Your task to perform on an android device: install app "Pandora - Music & Podcasts" Image 0: 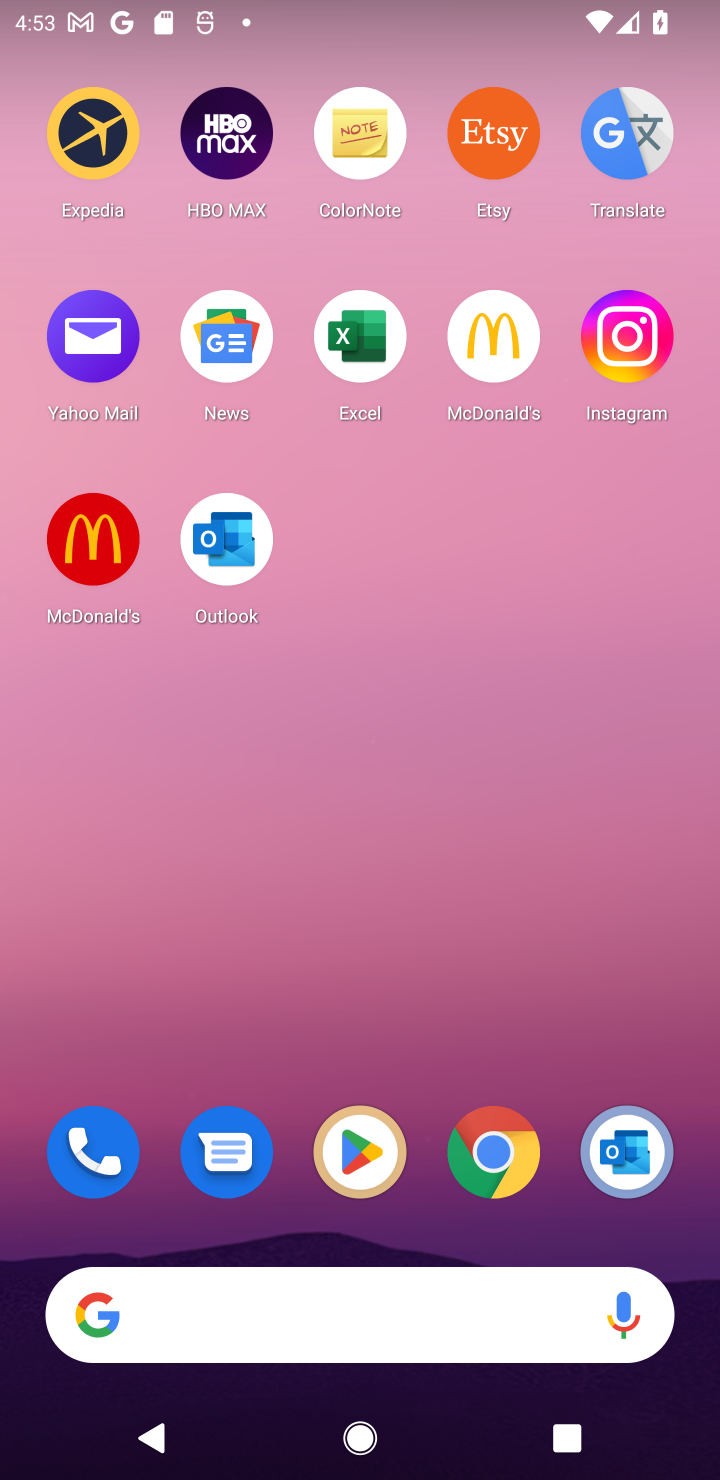
Step 0: click (375, 1175)
Your task to perform on an android device: install app "Pandora - Music & Podcasts" Image 1: 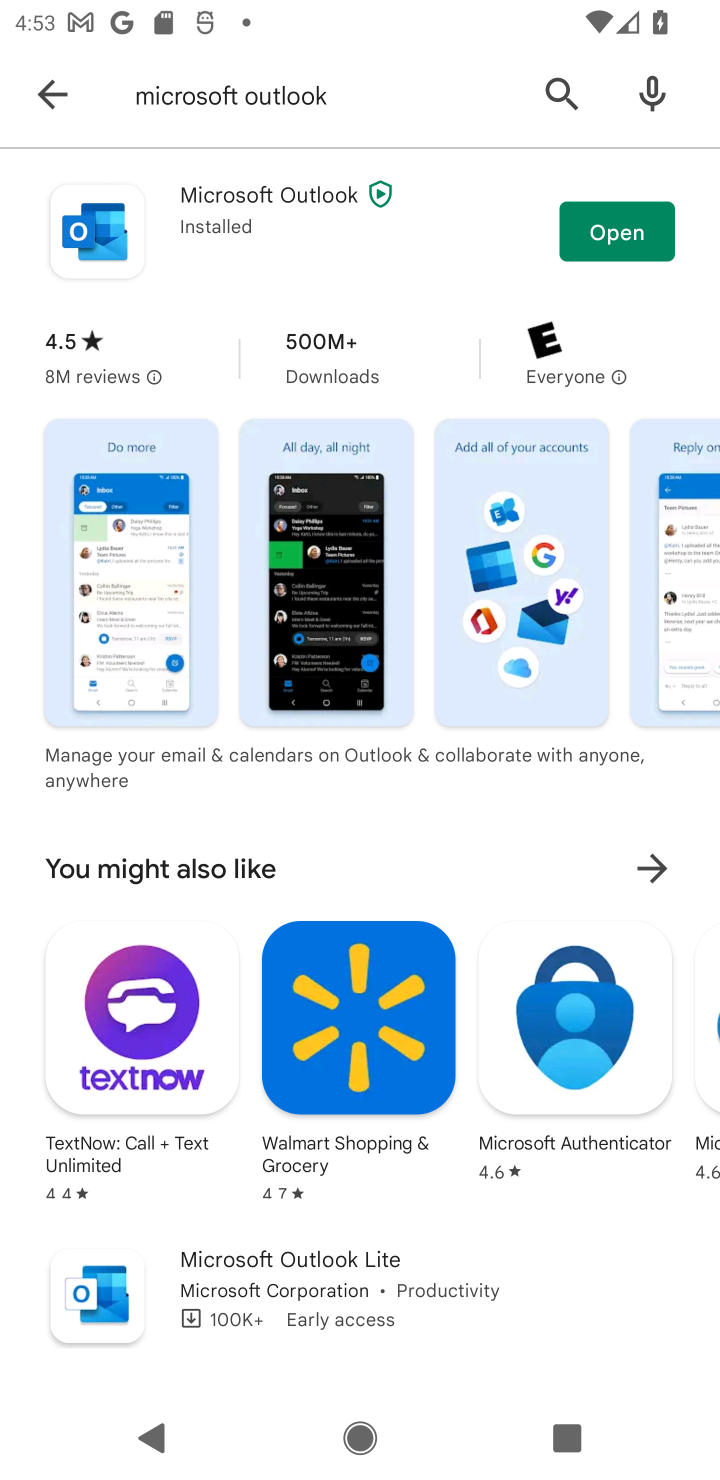
Step 1: click (64, 85)
Your task to perform on an android device: install app "Pandora - Music & Podcasts" Image 2: 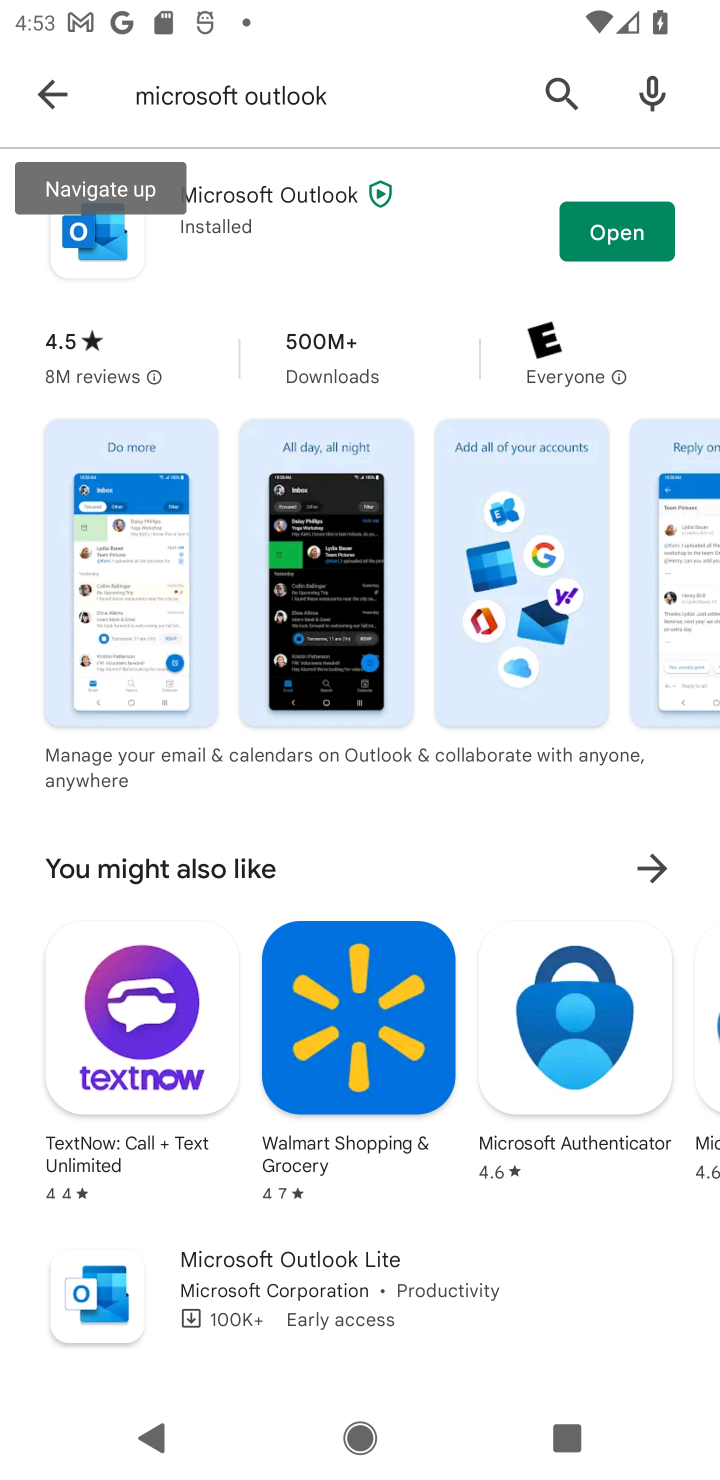
Step 2: click (541, 99)
Your task to perform on an android device: install app "Pandora - Music & Podcasts" Image 3: 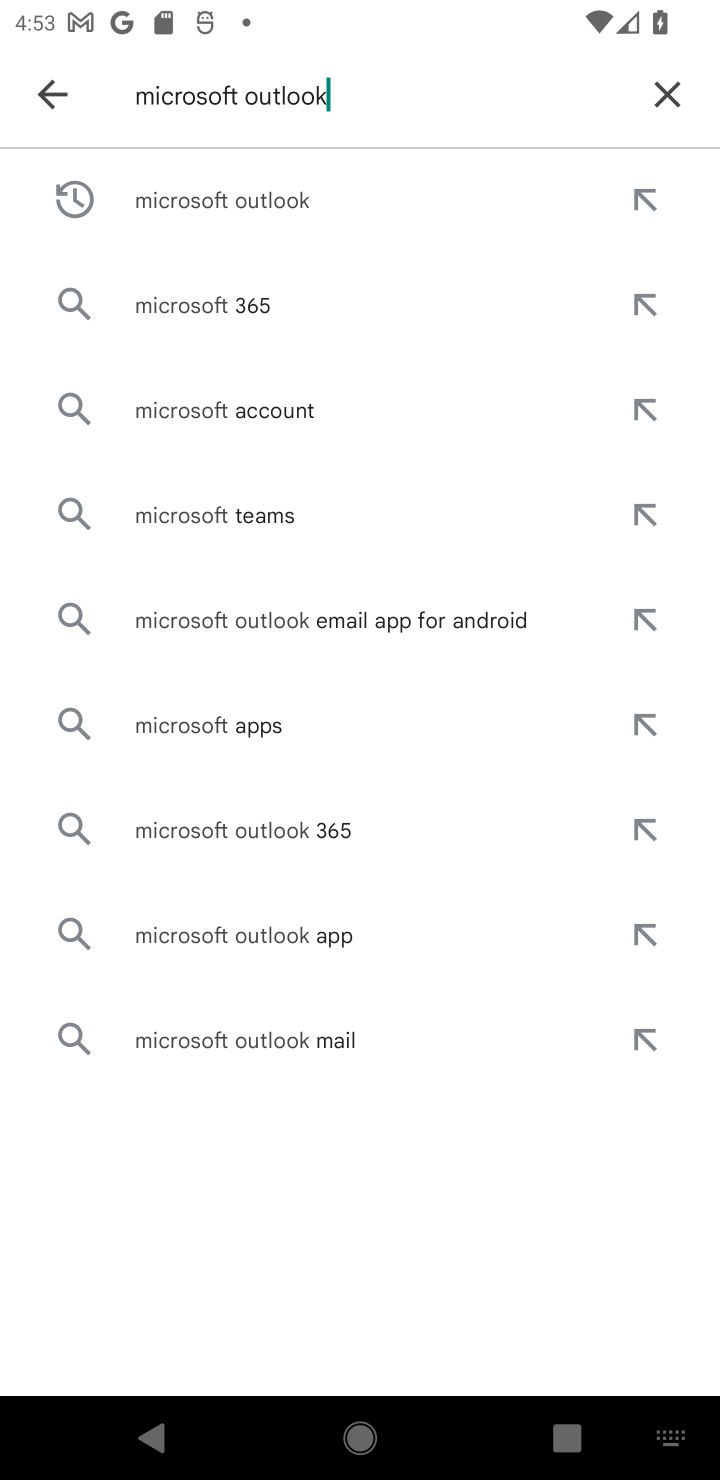
Step 3: click (665, 84)
Your task to perform on an android device: install app "Pandora - Music & Podcasts" Image 4: 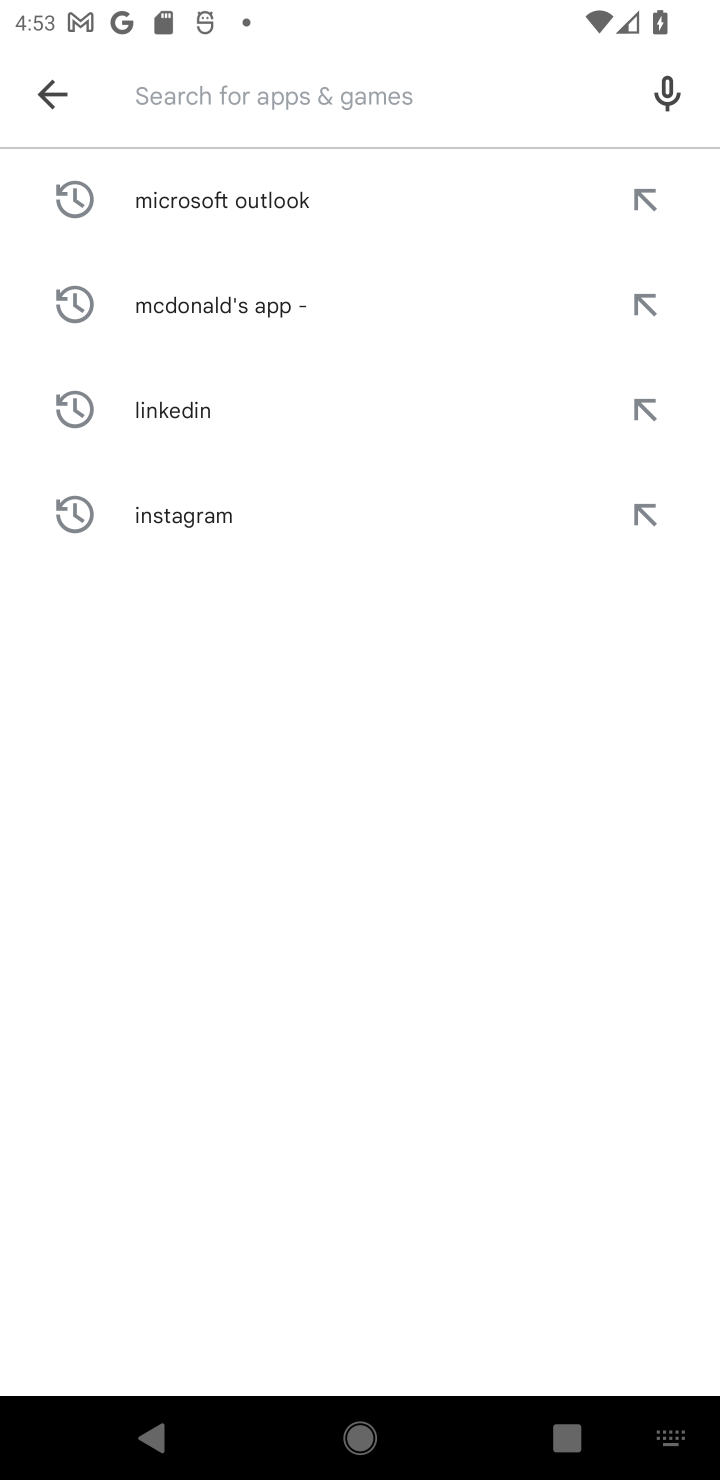
Step 4: type "Pandora - Music & Podcasts"
Your task to perform on an android device: install app "Pandora - Music & Podcasts" Image 5: 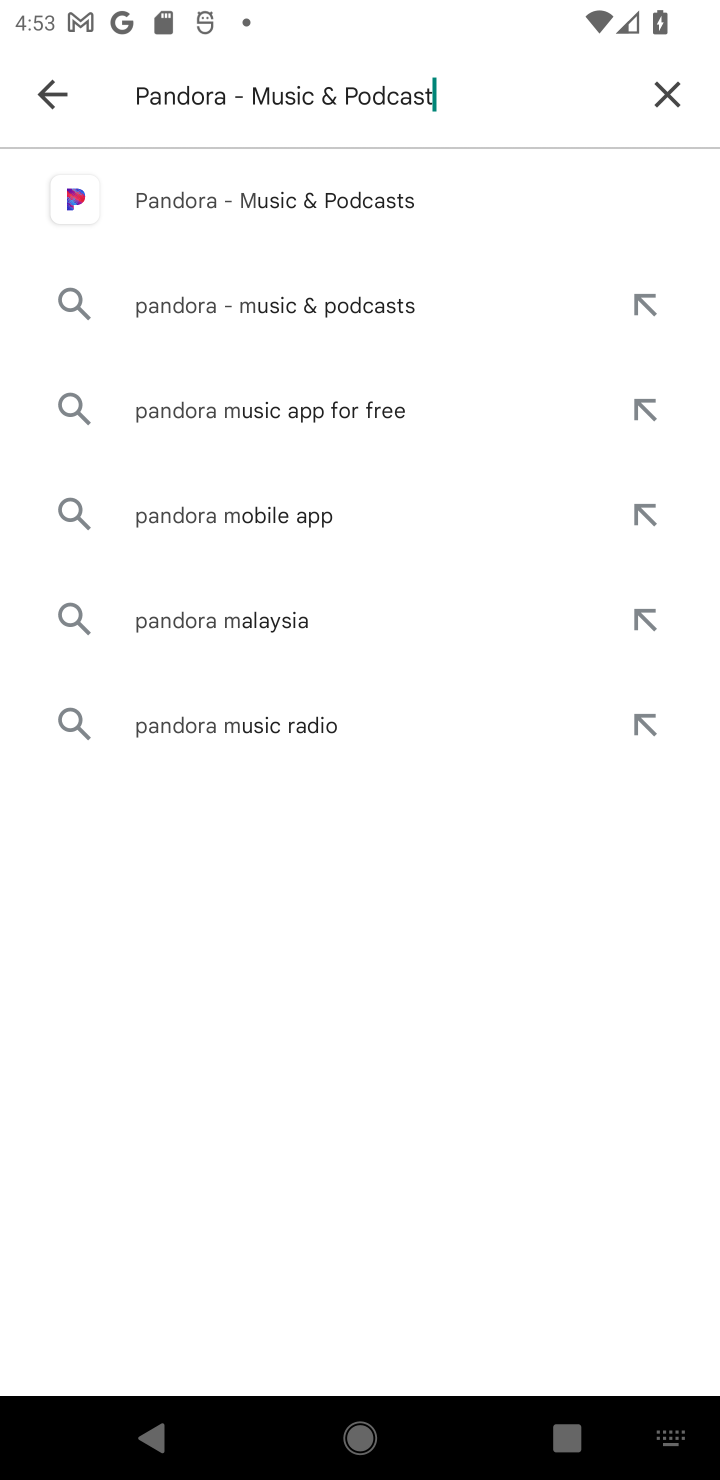
Step 5: type ""
Your task to perform on an android device: install app "Pandora - Music & Podcasts" Image 6: 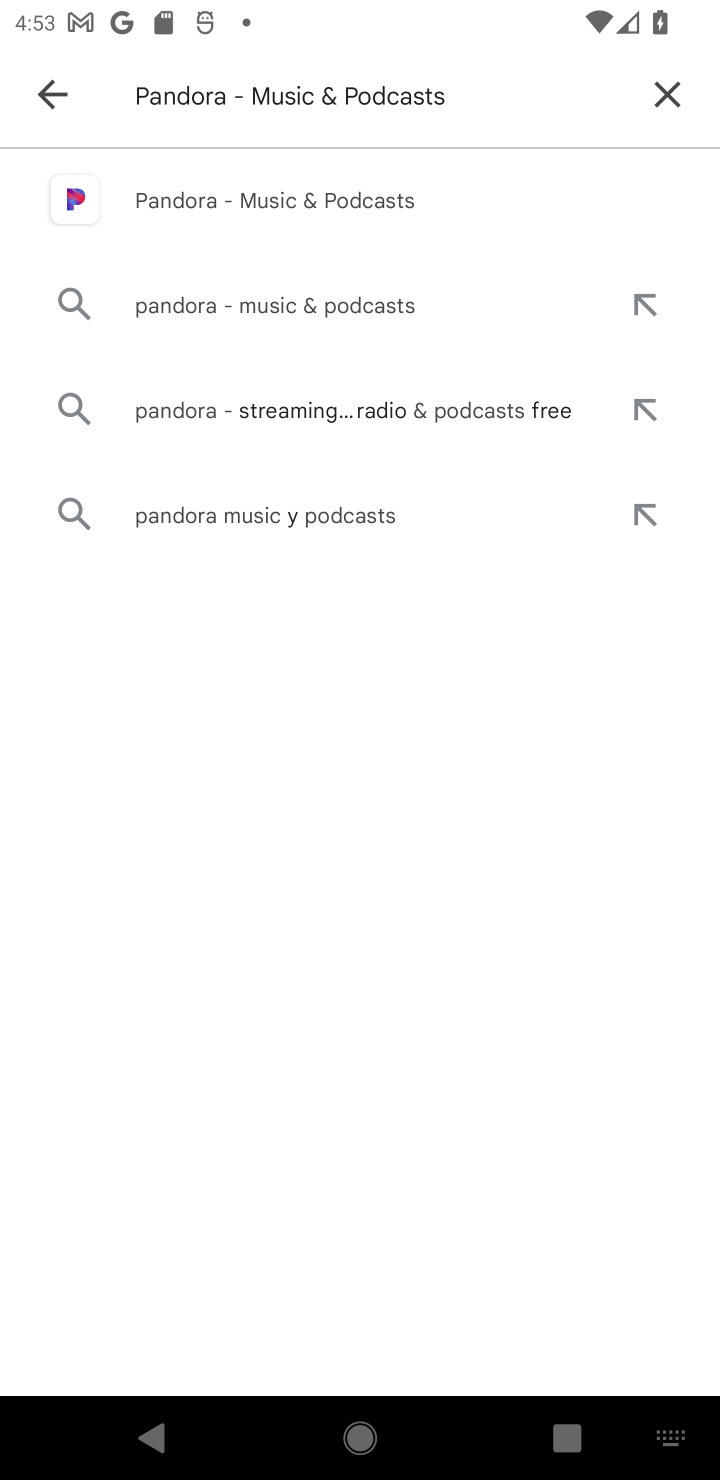
Step 6: click (217, 186)
Your task to perform on an android device: install app "Pandora - Music & Podcasts" Image 7: 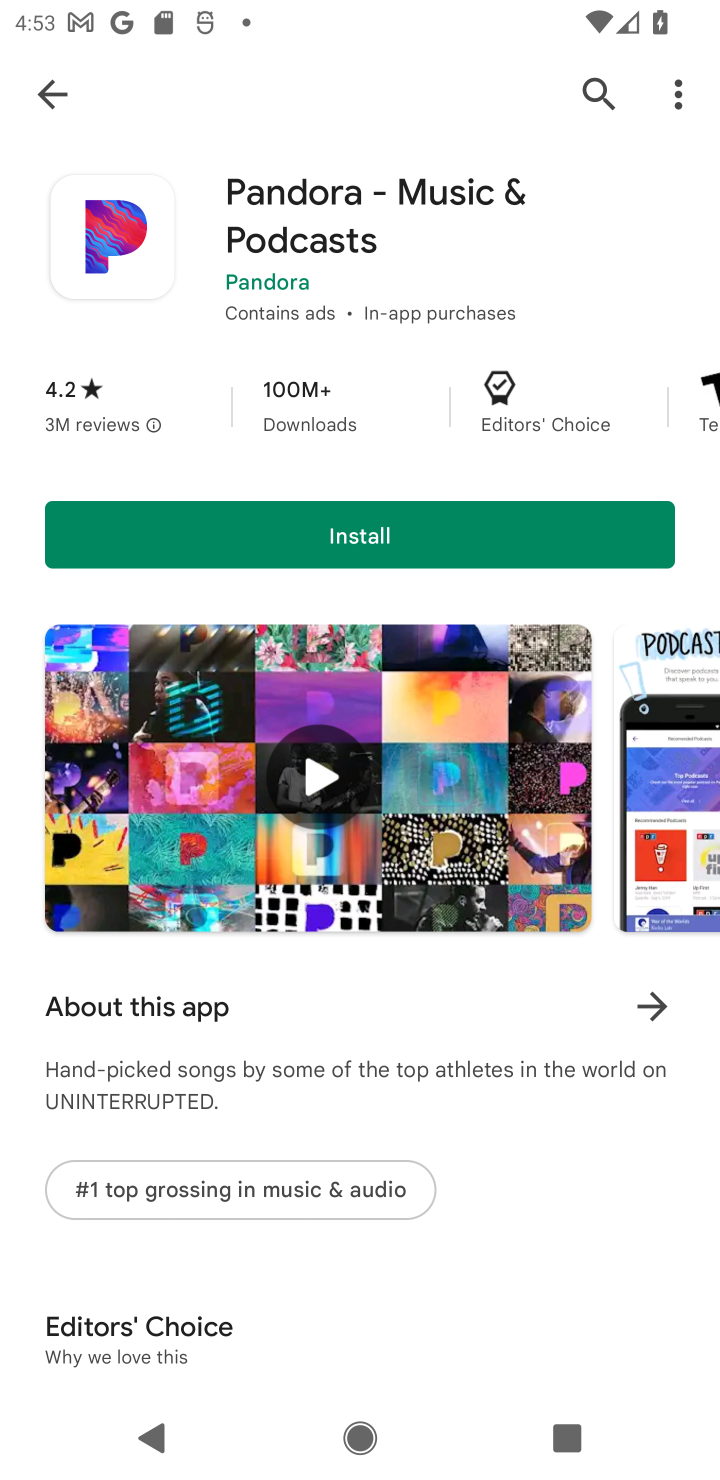
Step 7: click (363, 569)
Your task to perform on an android device: install app "Pandora - Music & Podcasts" Image 8: 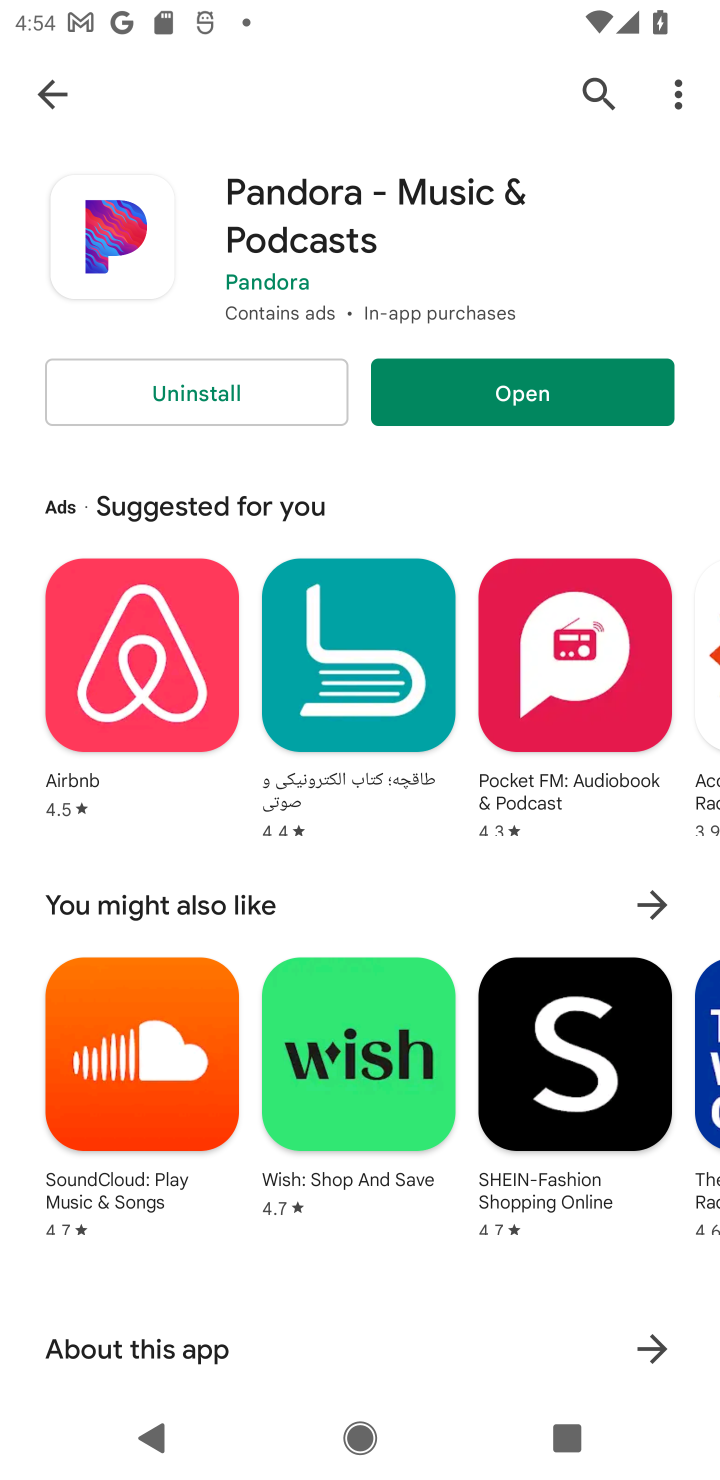
Step 8: task complete